Your task to perform on an android device: Go to Yahoo.com Image 0: 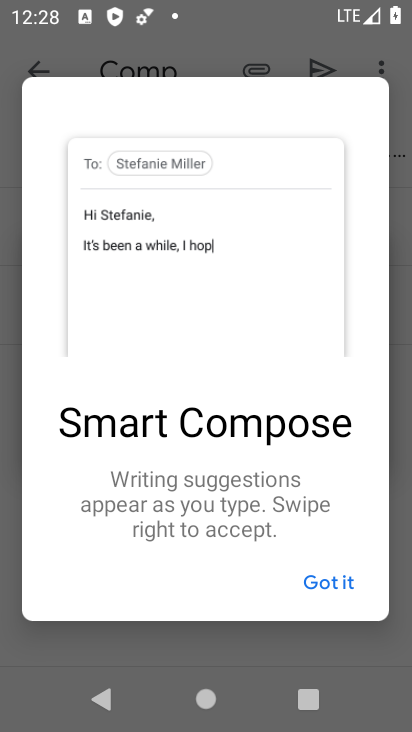
Step 0: press home button
Your task to perform on an android device: Go to Yahoo.com Image 1: 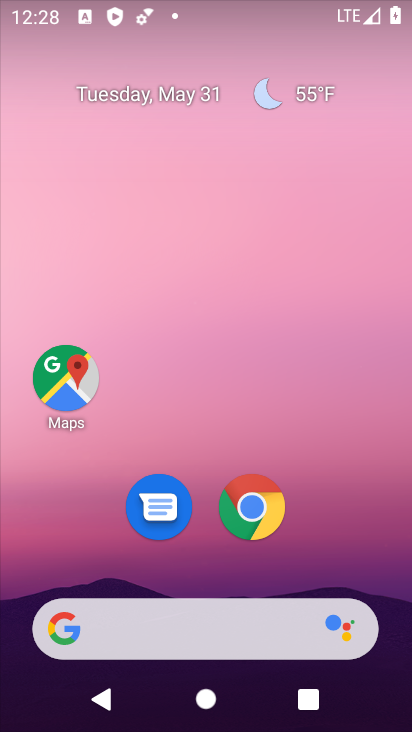
Step 1: drag from (387, 636) to (244, 37)
Your task to perform on an android device: Go to Yahoo.com Image 2: 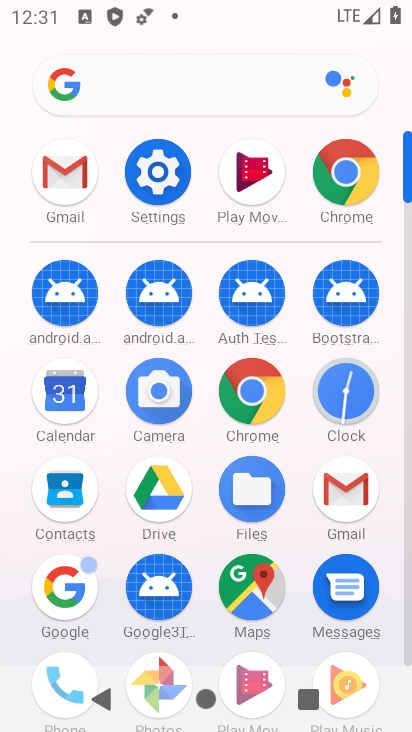
Step 2: click (67, 572)
Your task to perform on an android device: Go to Yahoo.com Image 3: 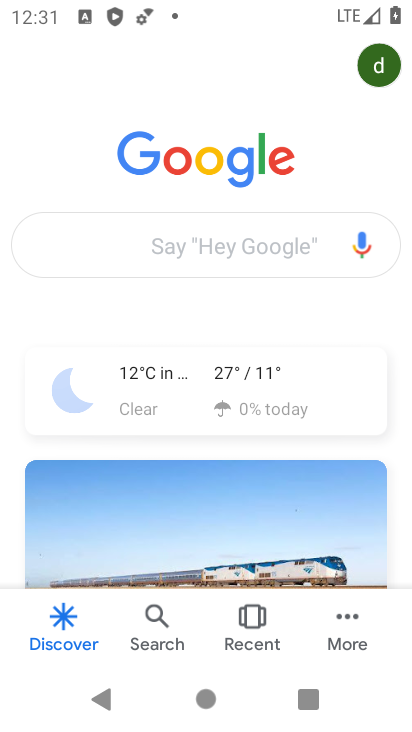
Step 3: click (95, 229)
Your task to perform on an android device: Go to Yahoo.com Image 4: 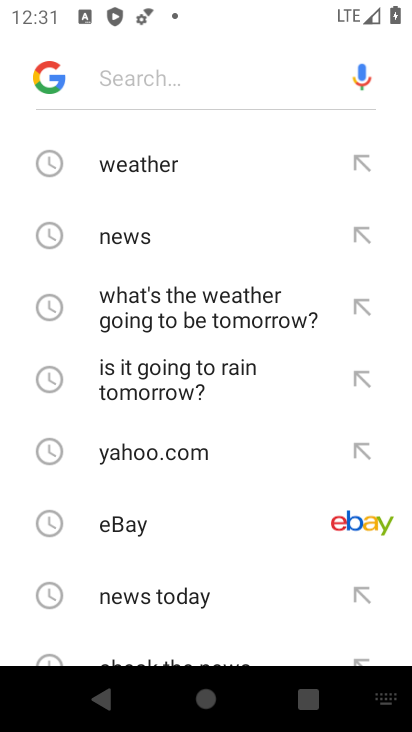
Step 4: click (184, 440)
Your task to perform on an android device: Go to Yahoo.com Image 5: 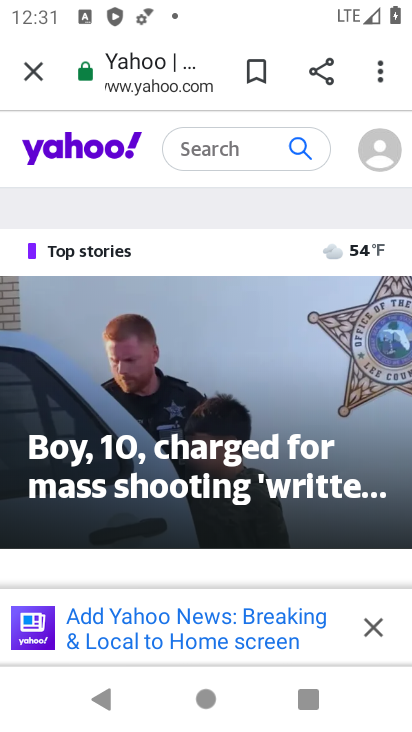
Step 5: task complete